Your task to perform on an android device: Go to internet settings Image 0: 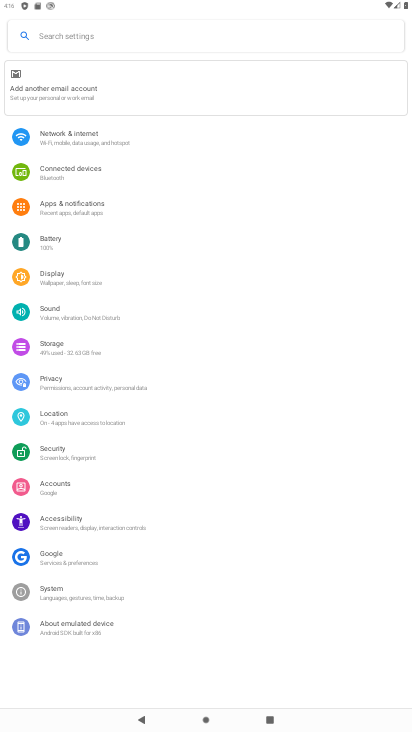
Step 0: press home button
Your task to perform on an android device: Go to internet settings Image 1: 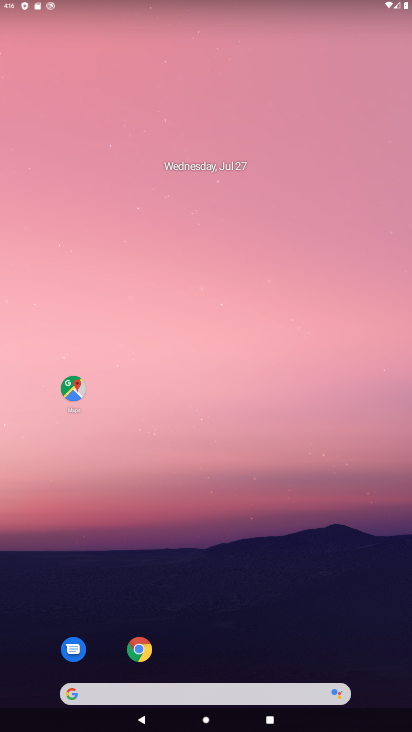
Step 1: drag from (184, 625) to (178, 163)
Your task to perform on an android device: Go to internet settings Image 2: 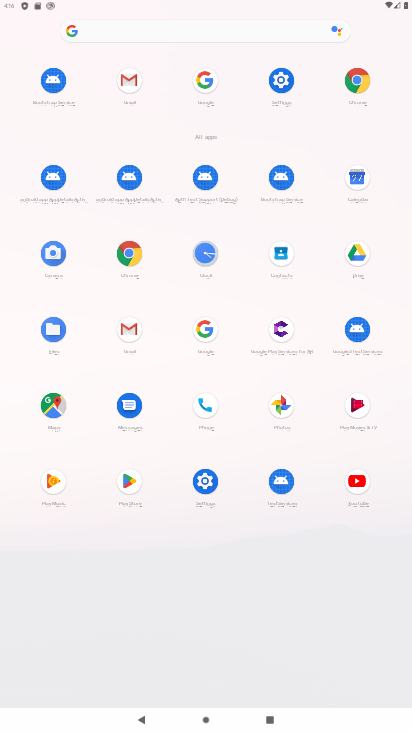
Step 2: click (280, 81)
Your task to perform on an android device: Go to internet settings Image 3: 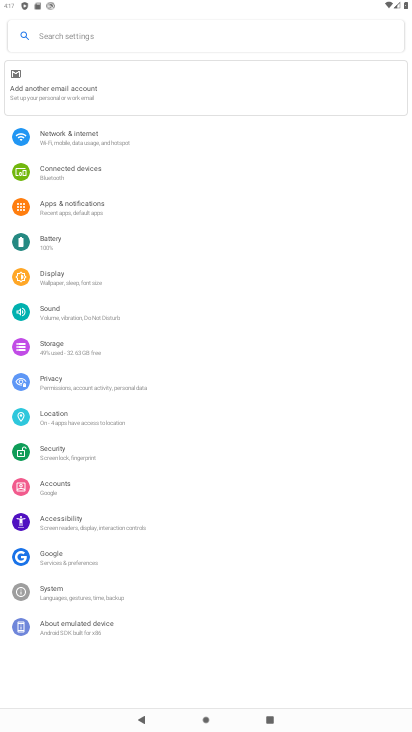
Step 3: click (81, 144)
Your task to perform on an android device: Go to internet settings Image 4: 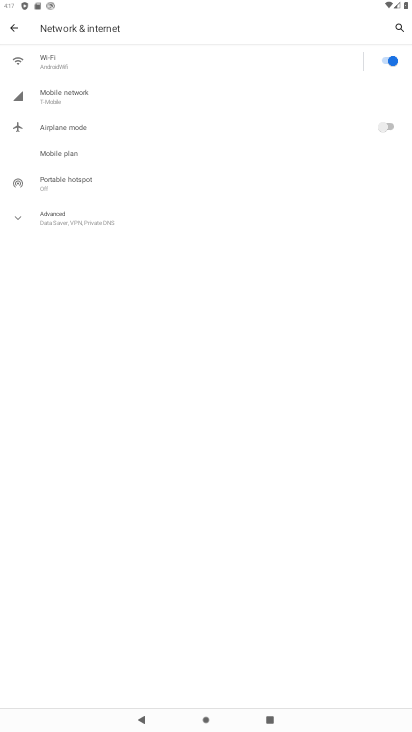
Step 4: task complete